Your task to perform on an android device: Search for vegetarian restaurants on Maps Image 0: 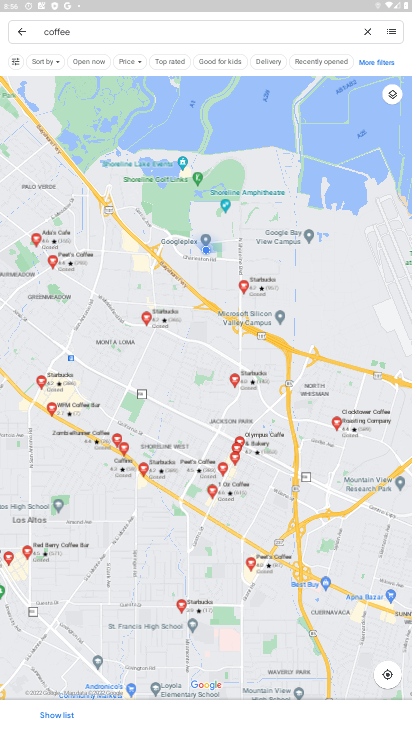
Step 0: click (19, 24)
Your task to perform on an android device: Search for vegetarian restaurants on Maps Image 1: 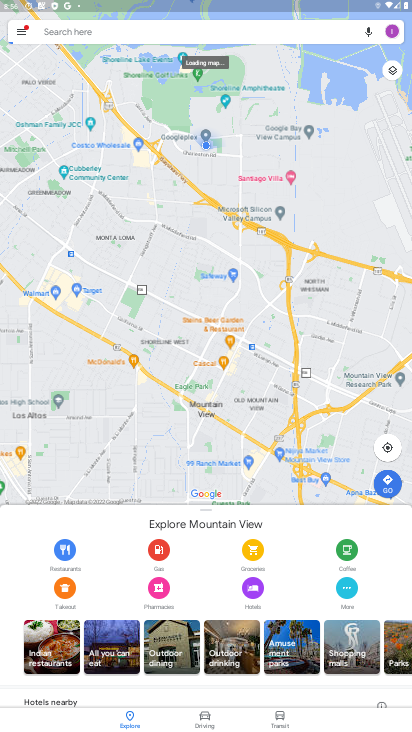
Step 1: click (74, 31)
Your task to perform on an android device: Search for vegetarian restaurants on Maps Image 2: 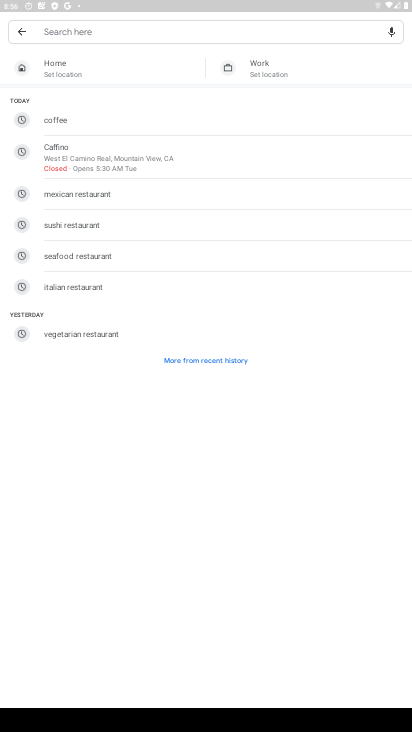
Step 2: click (96, 328)
Your task to perform on an android device: Search for vegetarian restaurants on Maps Image 3: 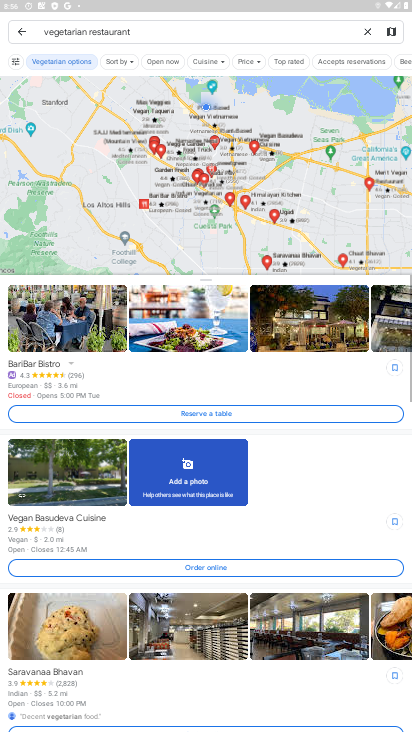
Step 3: task complete